Your task to perform on an android device: add a label to a message in the gmail app Image 0: 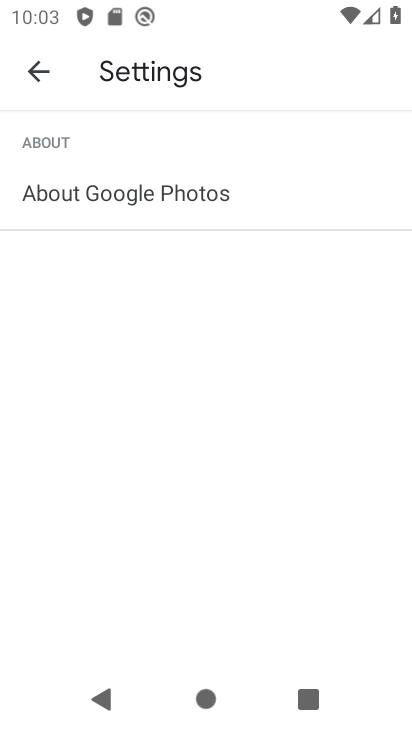
Step 0: press home button
Your task to perform on an android device: add a label to a message in the gmail app Image 1: 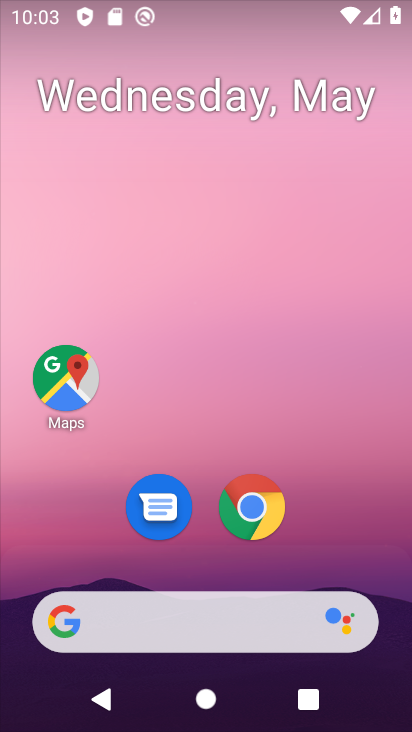
Step 1: press home button
Your task to perform on an android device: add a label to a message in the gmail app Image 2: 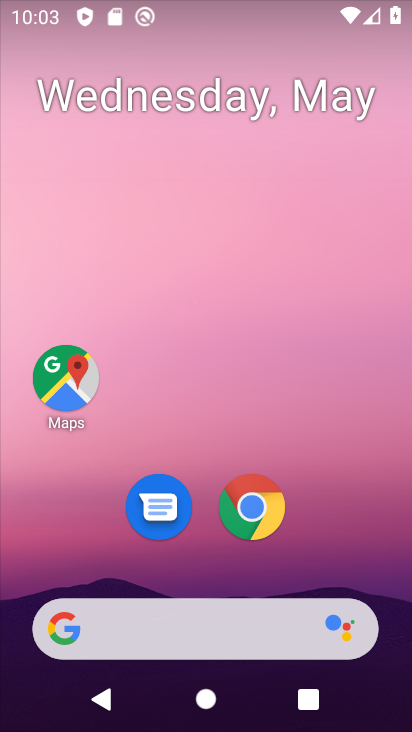
Step 2: drag from (257, 432) to (305, 34)
Your task to perform on an android device: add a label to a message in the gmail app Image 3: 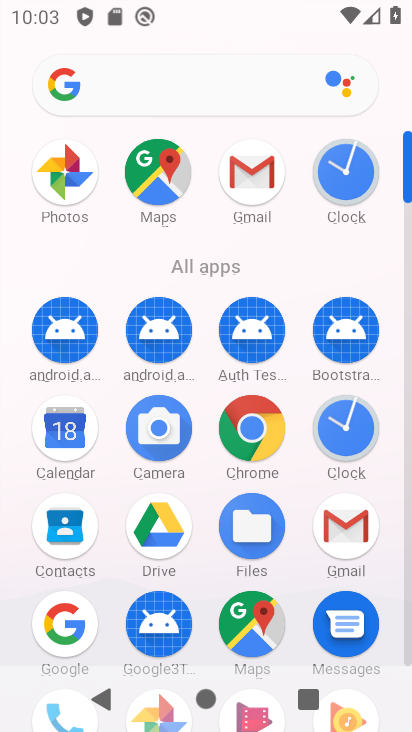
Step 3: click (263, 162)
Your task to perform on an android device: add a label to a message in the gmail app Image 4: 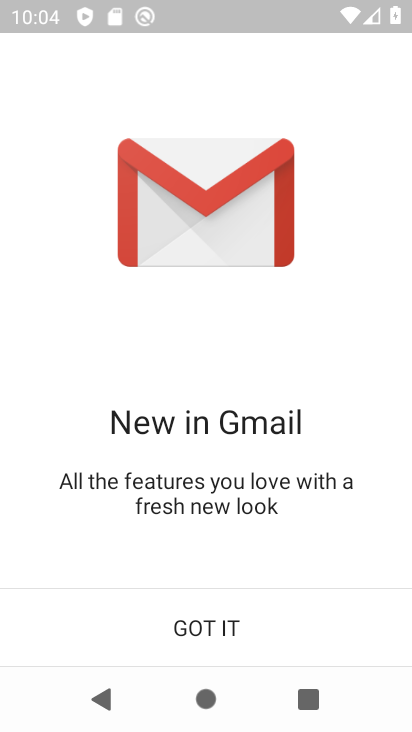
Step 4: click (216, 636)
Your task to perform on an android device: add a label to a message in the gmail app Image 5: 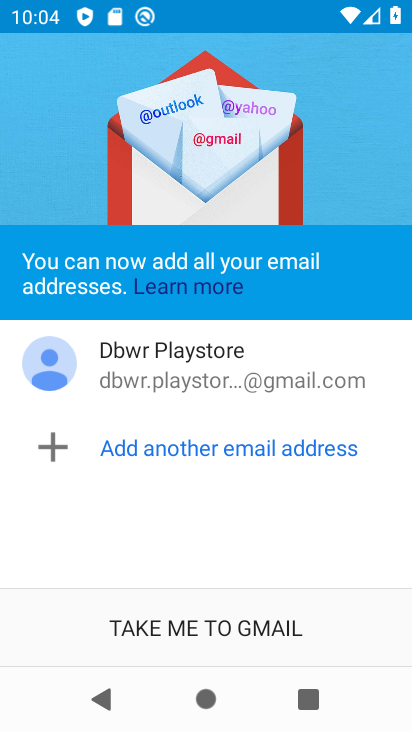
Step 5: click (224, 626)
Your task to perform on an android device: add a label to a message in the gmail app Image 6: 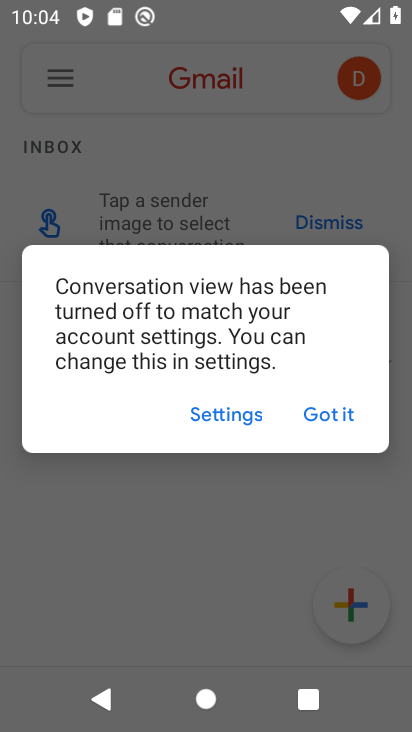
Step 6: click (333, 414)
Your task to perform on an android device: add a label to a message in the gmail app Image 7: 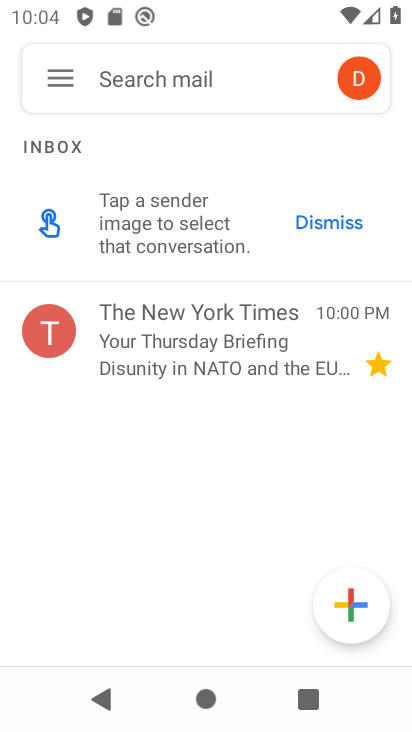
Step 7: click (65, 327)
Your task to perform on an android device: add a label to a message in the gmail app Image 8: 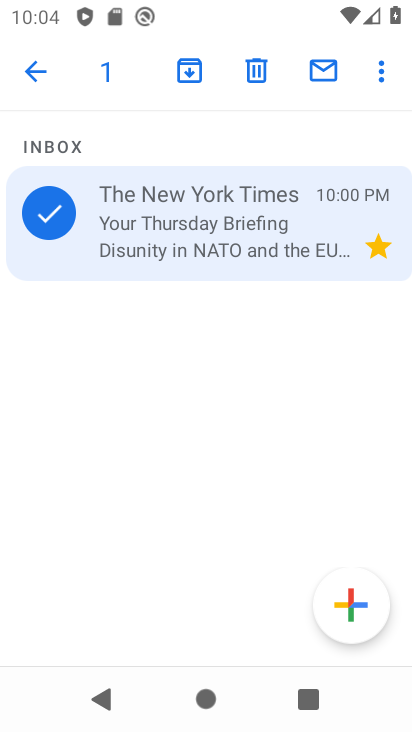
Step 8: click (384, 78)
Your task to perform on an android device: add a label to a message in the gmail app Image 9: 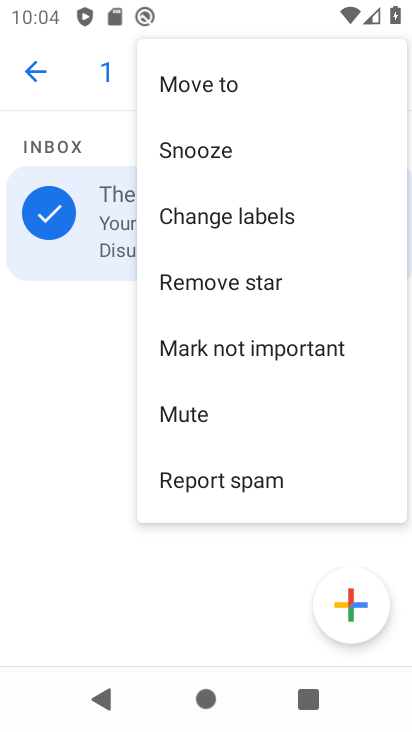
Step 9: click (266, 221)
Your task to perform on an android device: add a label to a message in the gmail app Image 10: 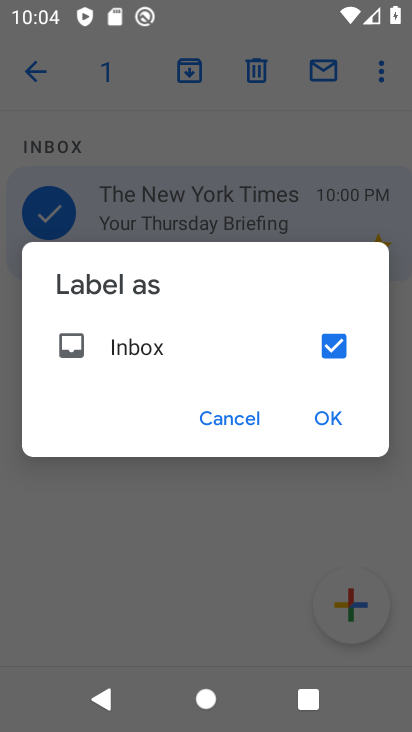
Step 10: click (331, 339)
Your task to perform on an android device: add a label to a message in the gmail app Image 11: 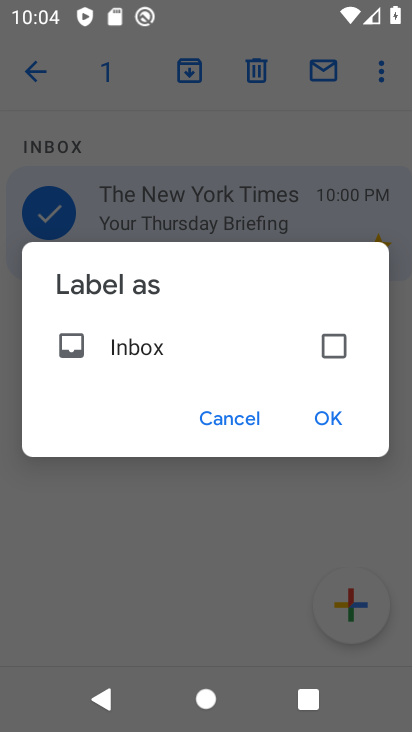
Step 11: click (333, 424)
Your task to perform on an android device: add a label to a message in the gmail app Image 12: 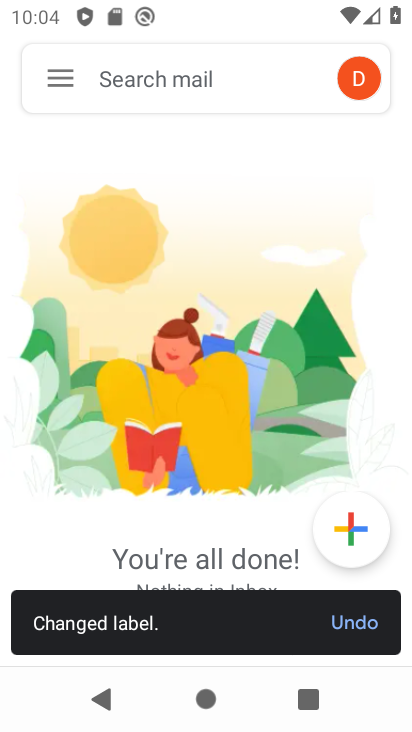
Step 12: task complete